Your task to perform on an android device: Go to battery settings Image 0: 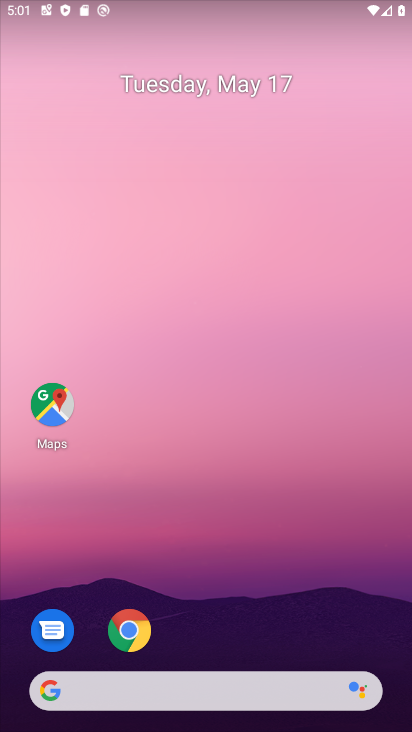
Step 0: drag from (332, 604) to (288, 121)
Your task to perform on an android device: Go to battery settings Image 1: 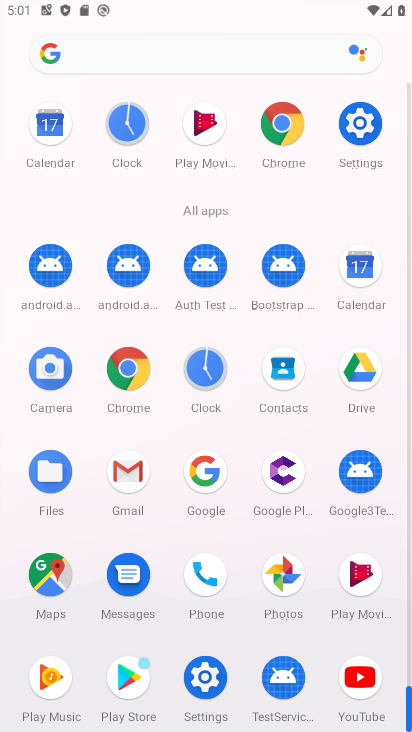
Step 1: click (368, 118)
Your task to perform on an android device: Go to battery settings Image 2: 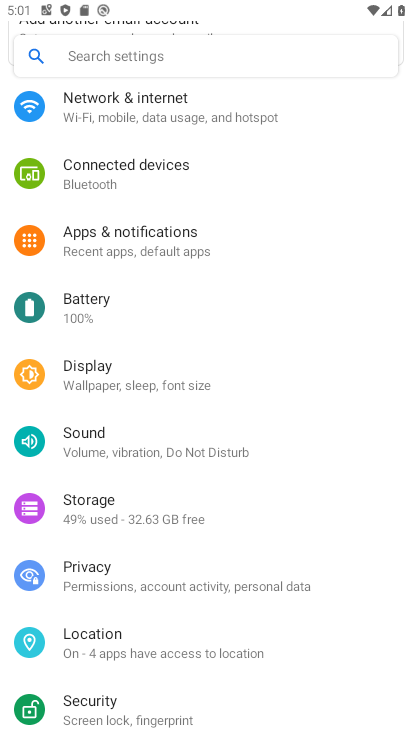
Step 2: click (125, 311)
Your task to perform on an android device: Go to battery settings Image 3: 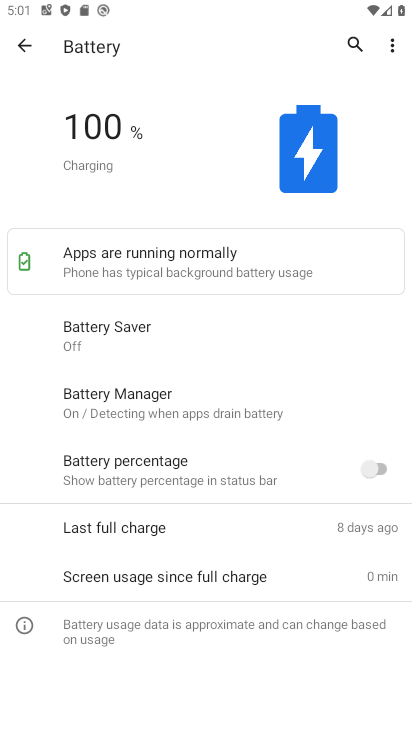
Step 3: task complete